Your task to perform on an android device: Check the news Image 0: 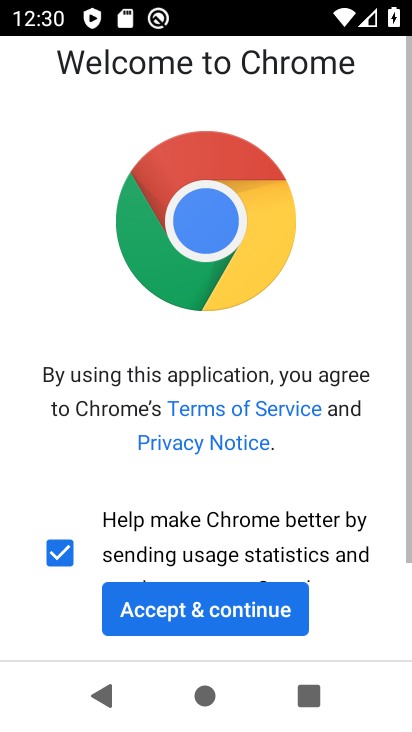
Step 0: drag from (309, 576) to (297, 341)
Your task to perform on an android device: Check the news Image 1: 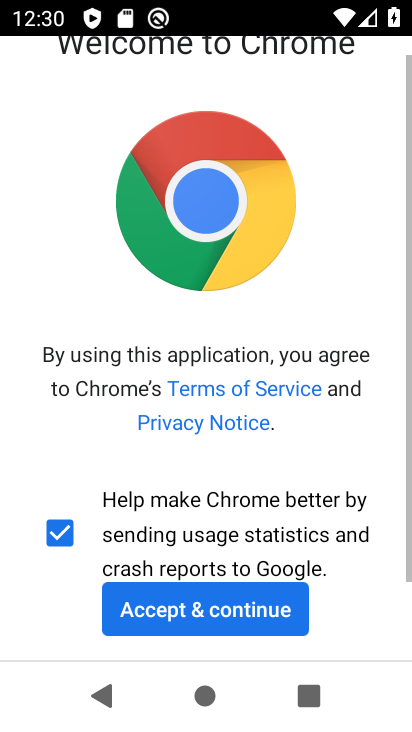
Step 1: click (192, 613)
Your task to perform on an android device: Check the news Image 2: 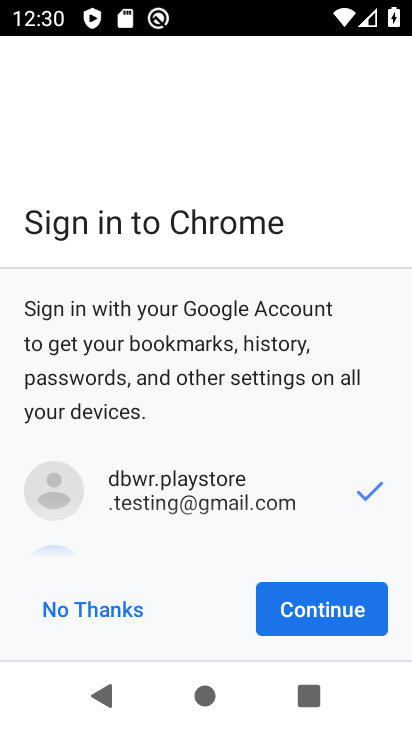
Step 2: click (299, 610)
Your task to perform on an android device: Check the news Image 3: 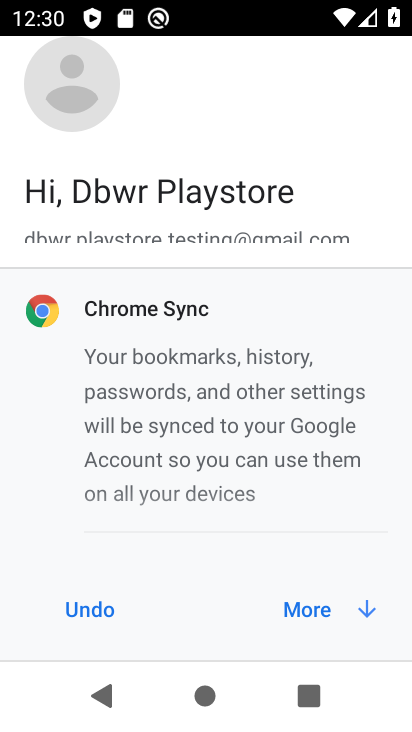
Step 3: click (299, 610)
Your task to perform on an android device: Check the news Image 4: 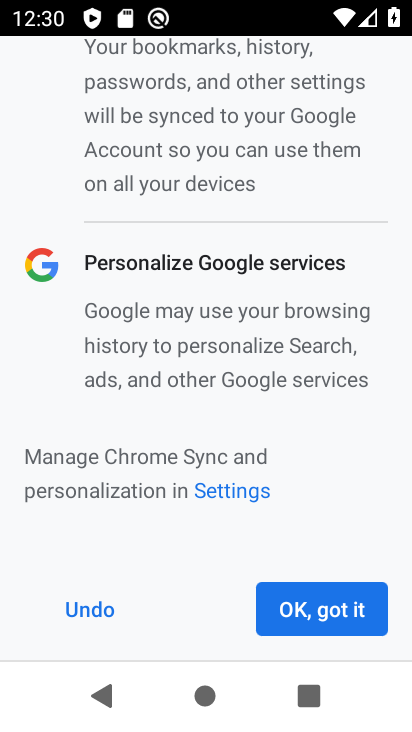
Step 4: click (299, 610)
Your task to perform on an android device: Check the news Image 5: 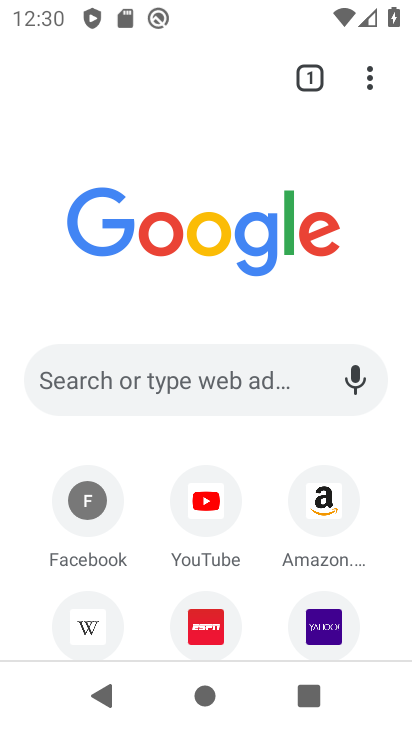
Step 5: press home button
Your task to perform on an android device: Check the news Image 6: 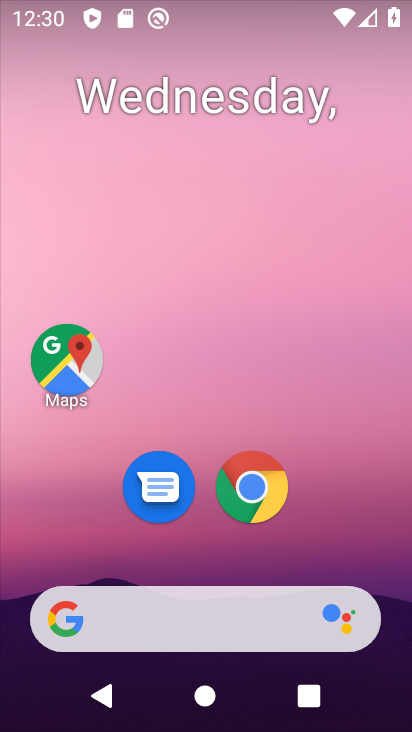
Step 6: click (209, 633)
Your task to perform on an android device: Check the news Image 7: 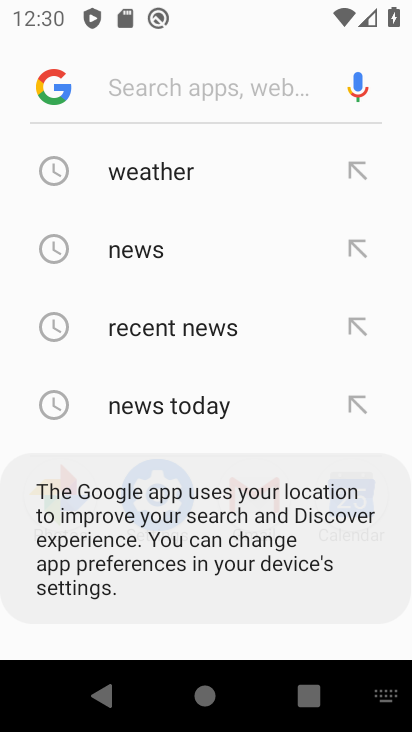
Step 7: click (139, 256)
Your task to perform on an android device: Check the news Image 8: 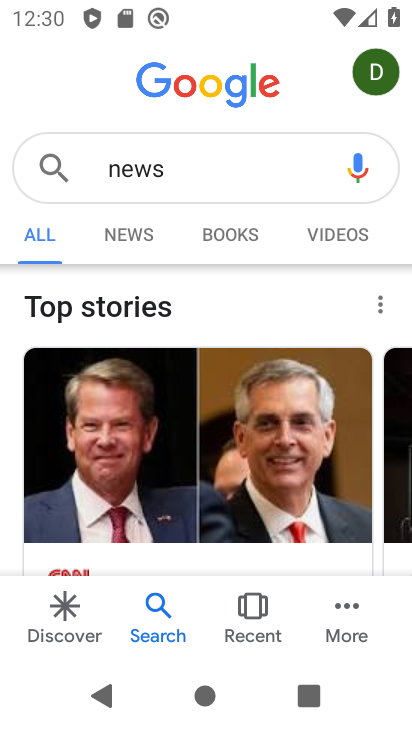
Step 8: task complete